Your task to perform on an android device: See recent photos Image 0: 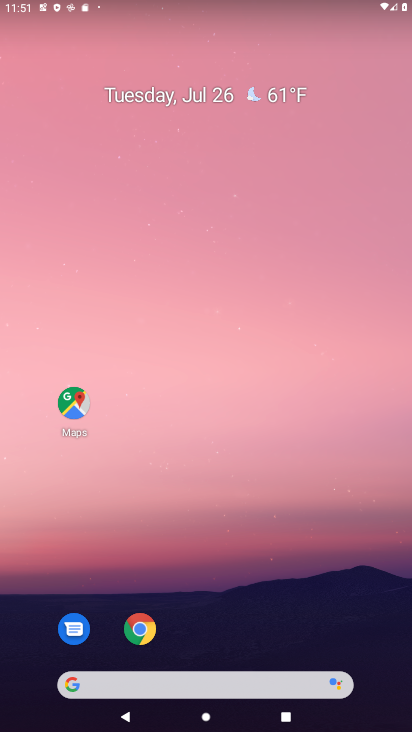
Step 0: drag from (257, 626) to (206, 51)
Your task to perform on an android device: See recent photos Image 1: 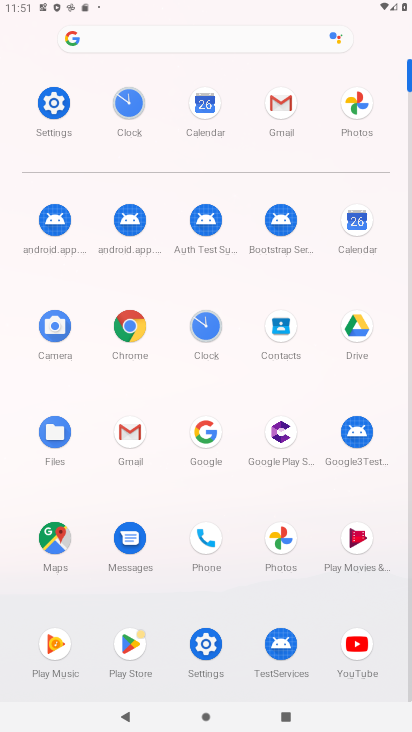
Step 1: click (342, 204)
Your task to perform on an android device: See recent photos Image 2: 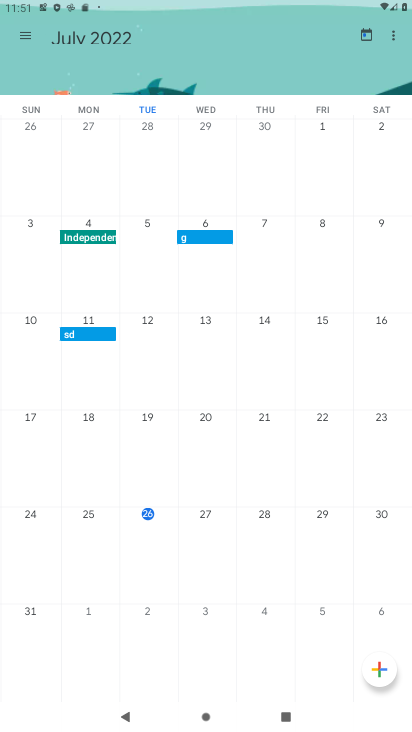
Step 2: task complete